Your task to perform on an android device: Show me popular videos on Youtube Image 0: 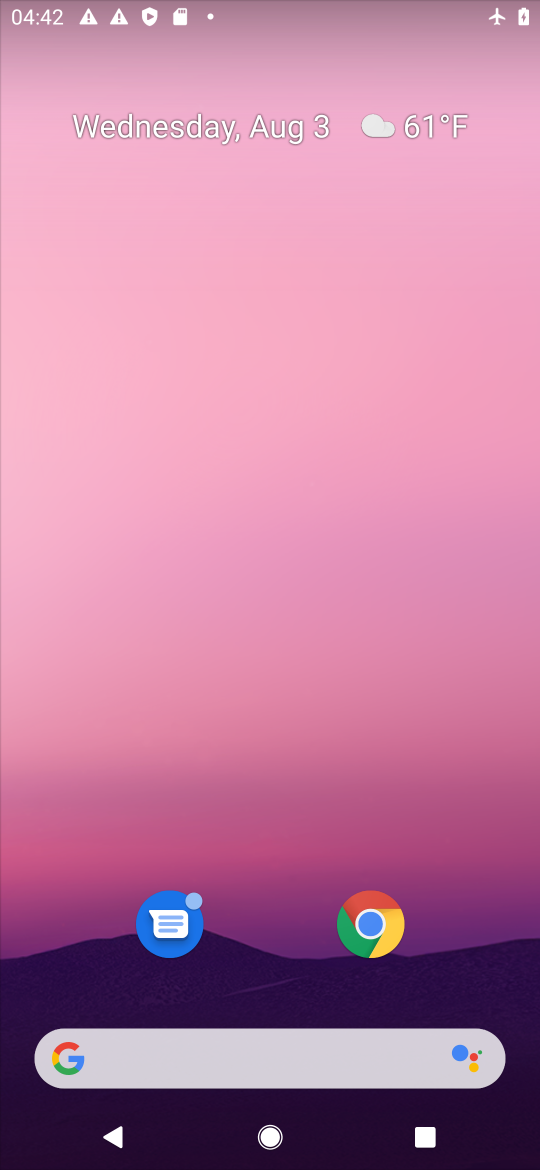
Step 0: drag from (299, 883) to (243, 297)
Your task to perform on an android device: Show me popular videos on Youtube Image 1: 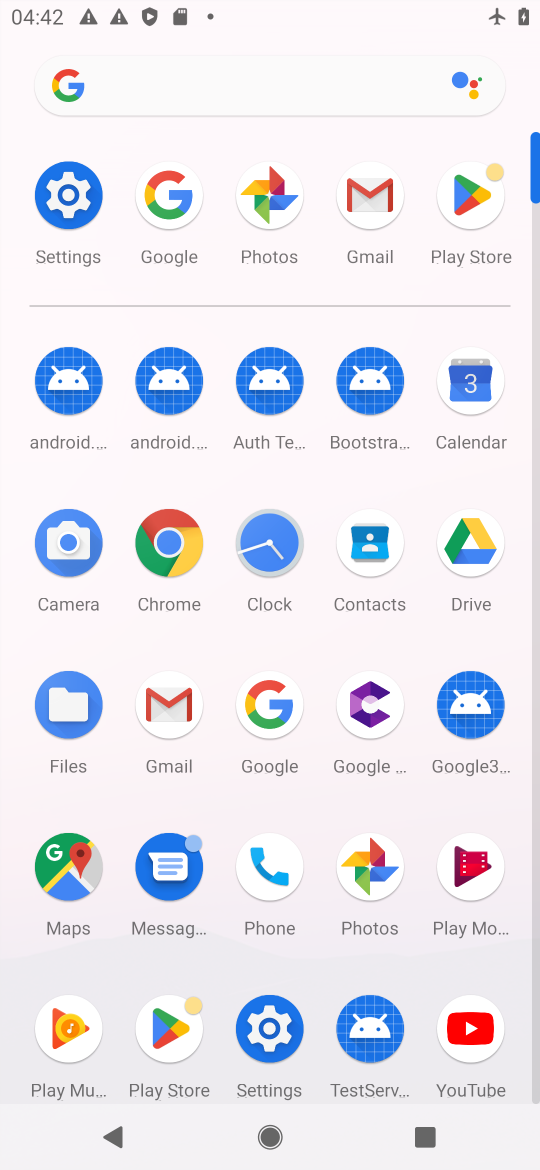
Step 1: click (470, 1027)
Your task to perform on an android device: Show me popular videos on Youtube Image 2: 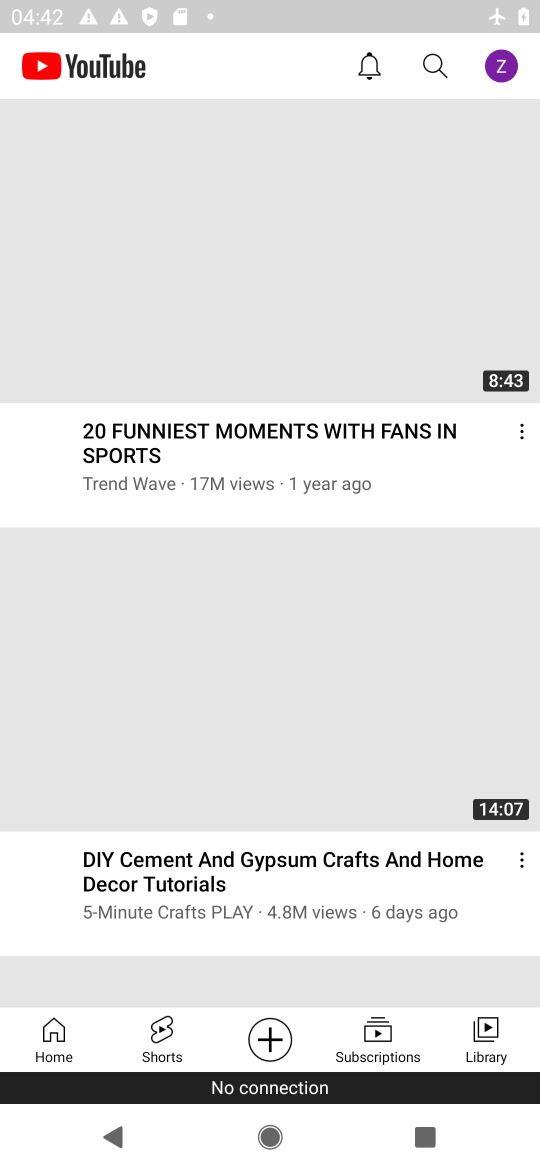
Step 2: click (429, 49)
Your task to perform on an android device: Show me popular videos on Youtube Image 3: 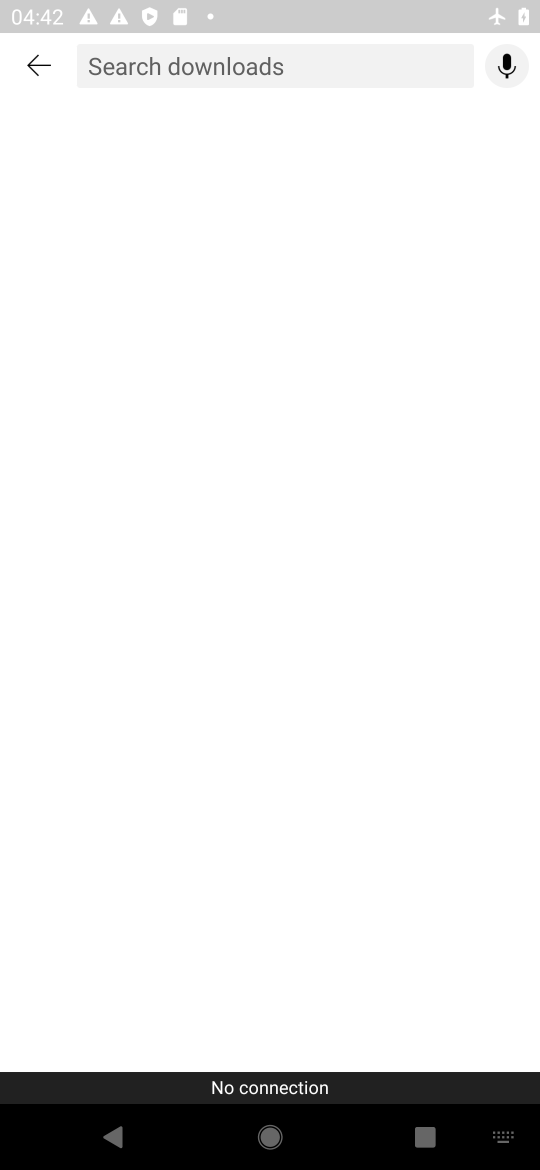
Step 3: type "popular videos"
Your task to perform on an android device: Show me popular videos on Youtube Image 4: 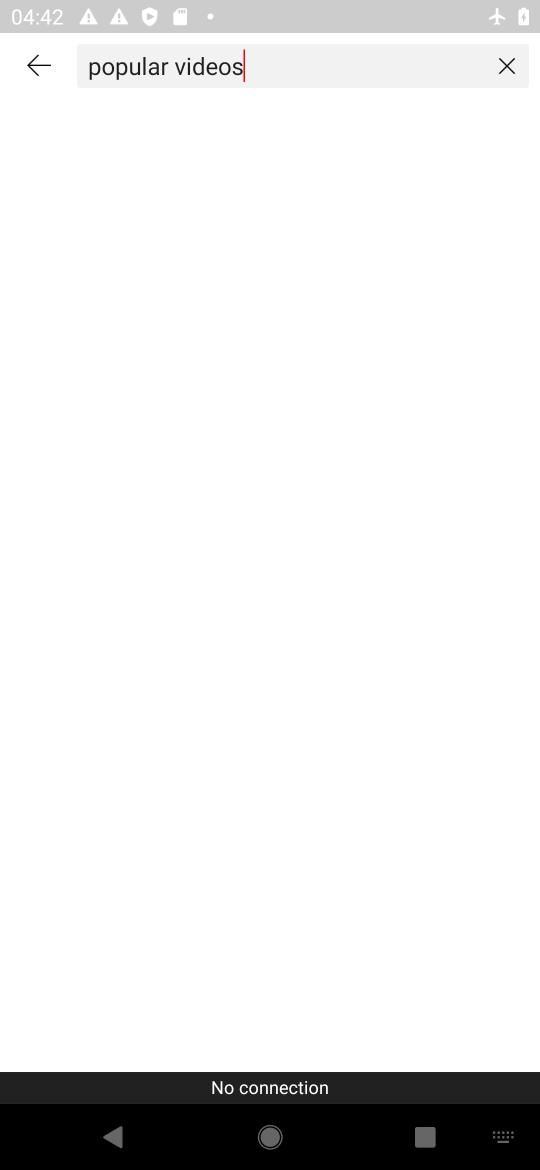
Step 4: type ""
Your task to perform on an android device: Show me popular videos on Youtube Image 5: 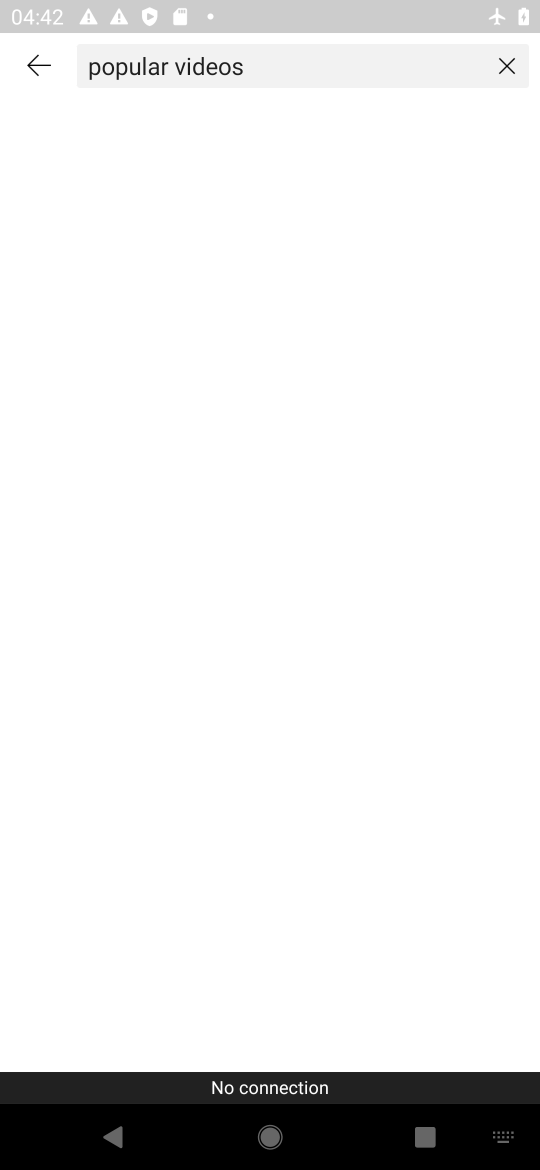
Step 5: task complete